Your task to perform on an android device: open chrome privacy settings Image 0: 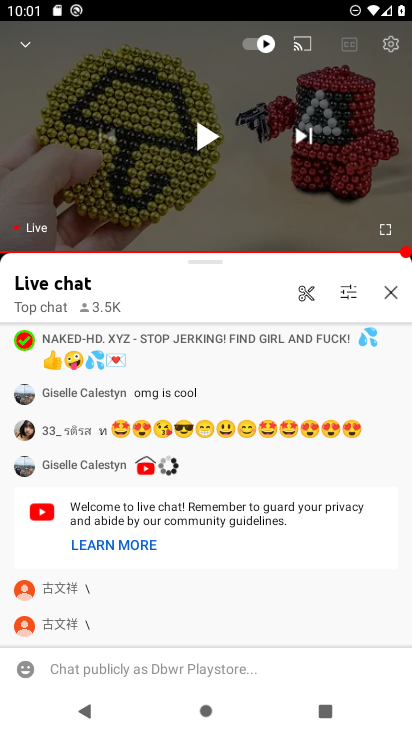
Step 0: press home button
Your task to perform on an android device: open chrome privacy settings Image 1: 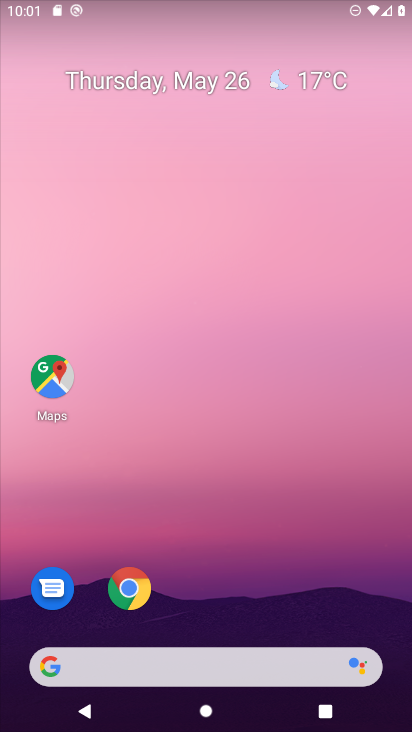
Step 1: click (126, 591)
Your task to perform on an android device: open chrome privacy settings Image 2: 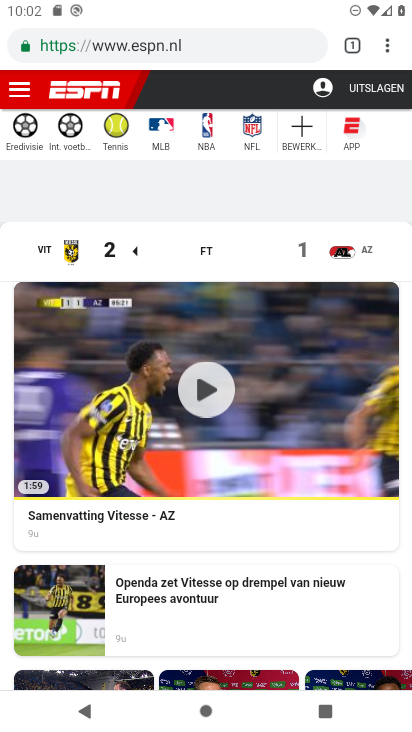
Step 2: click (385, 48)
Your task to perform on an android device: open chrome privacy settings Image 3: 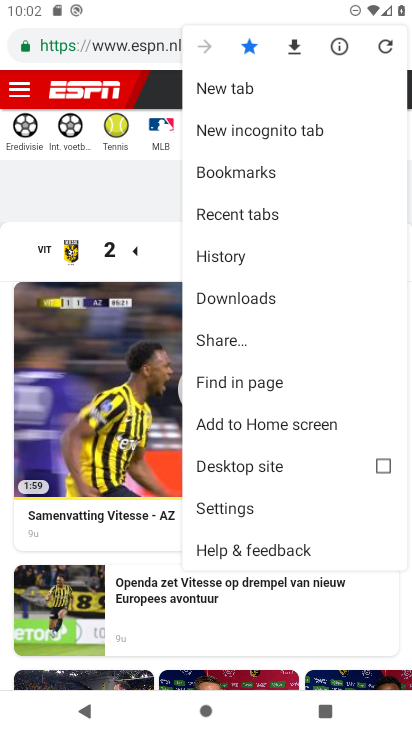
Step 3: click (242, 502)
Your task to perform on an android device: open chrome privacy settings Image 4: 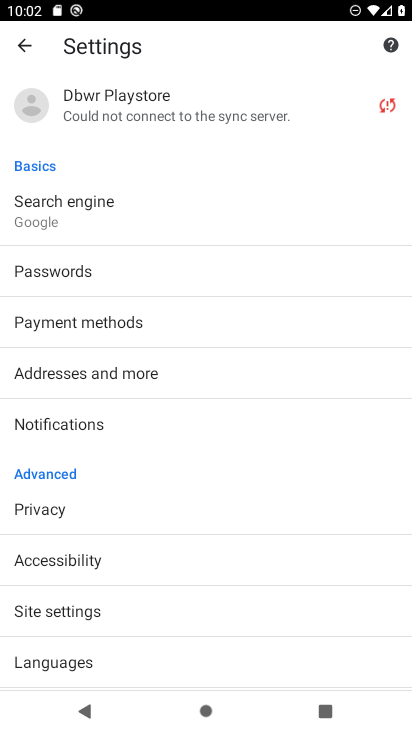
Step 4: click (53, 501)
Your task to perform on an android device: open chrome privacy settings Image 5: 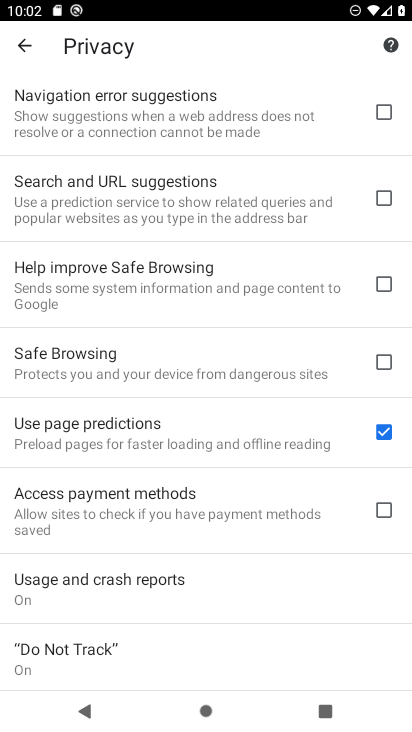
Step 5: task complete